Your task to perform on an android device: turn on showing notifications on the lock screen Image 0: 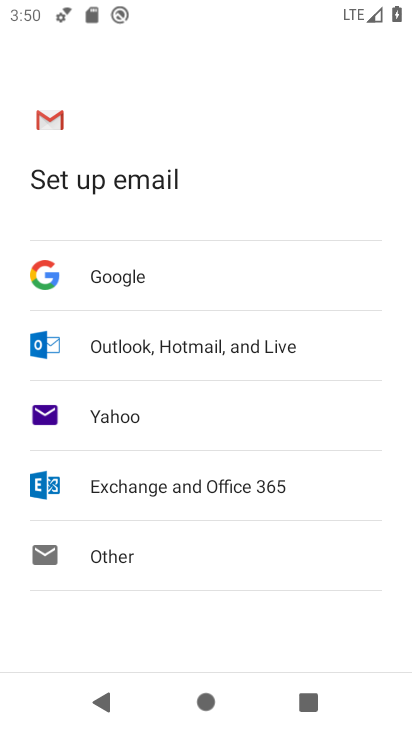
Step 0: press home button
Your task to perform on an android device: turn on showing notifications on the lock screen Image 1: 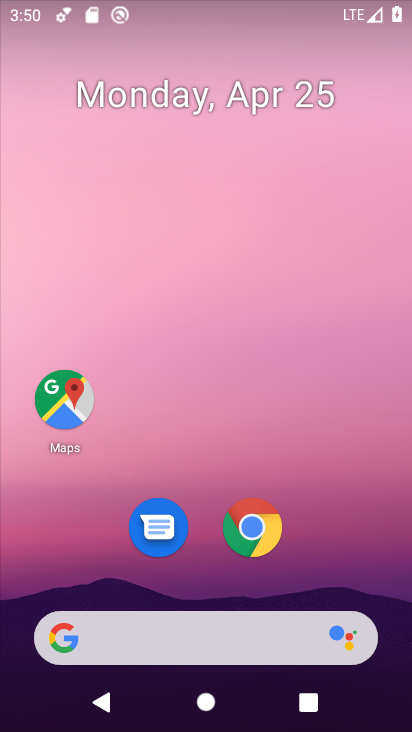
Step 1: drag from (389, 613) to (315, 42)
Your task to perform on an android device: turn on showing notifications on the lock screen Image 2: 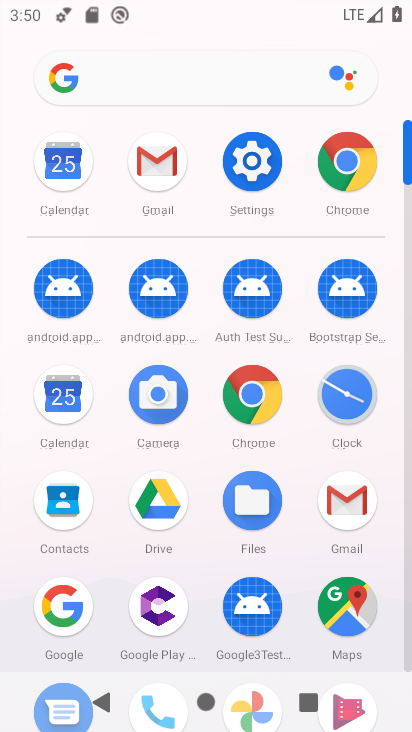
Step 2: click (409, 637)
Your task to perform on an android device: turn on showing notifications on the lock screen Image 3: 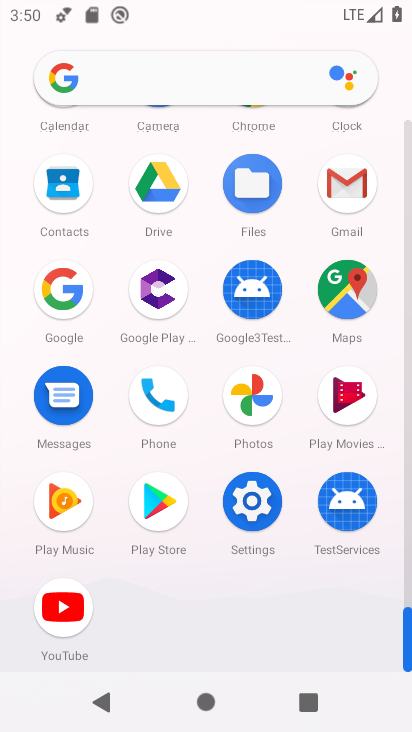
Step 3: click (249, 498)
Your task to perform on an android device: turn on showing notifications on the lock screen Image 4: 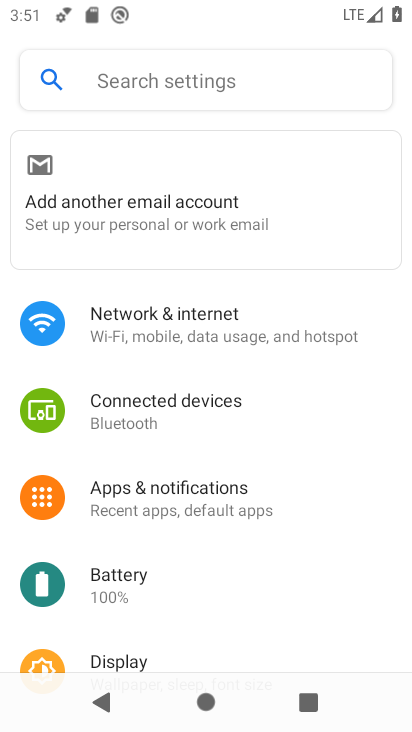
Step 4: click (167, 499)
Your task to perform on an android device: turn on showing notifications on the lock screen Image 5: 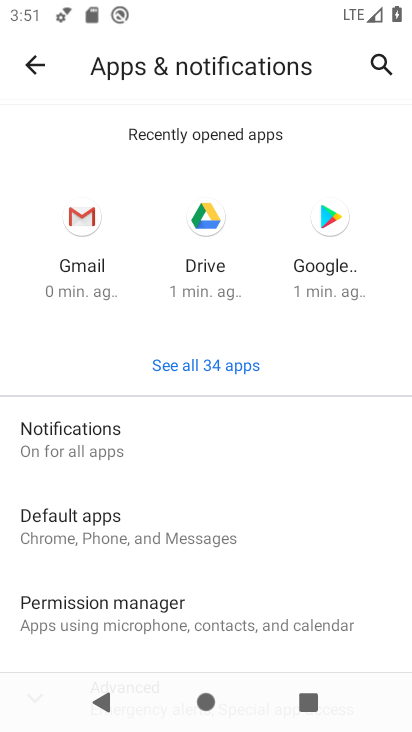
Step 5: drag from (281, 576) to (295, 222)
Your task to perform on an android device: turn on showing notifications on the lock screen Image 6: 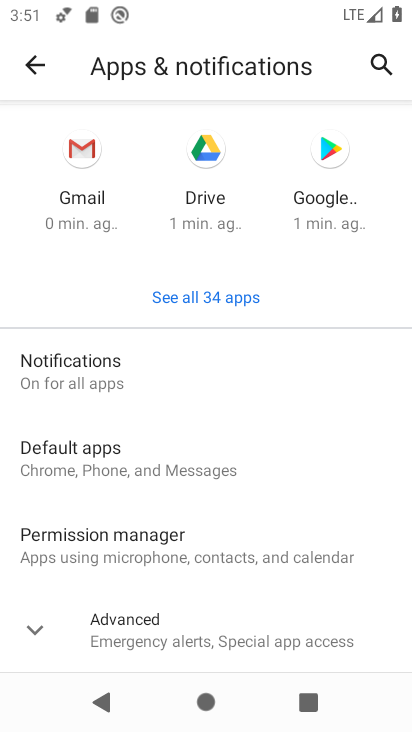
Step 6: click (70, 365)
Your task to perform on an android device: turn on showing notifications on the lock screen Image 7: 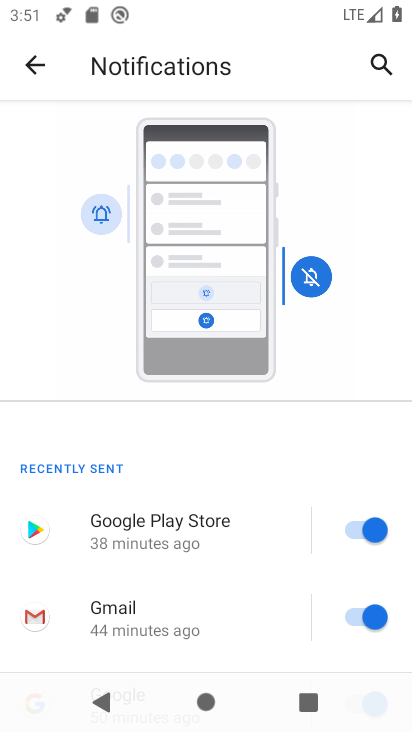
Step 7: drag from (306, 654) to (273, 173)
Your task to perform on an android device: turn on showing notifications on the lock screen Image 8: 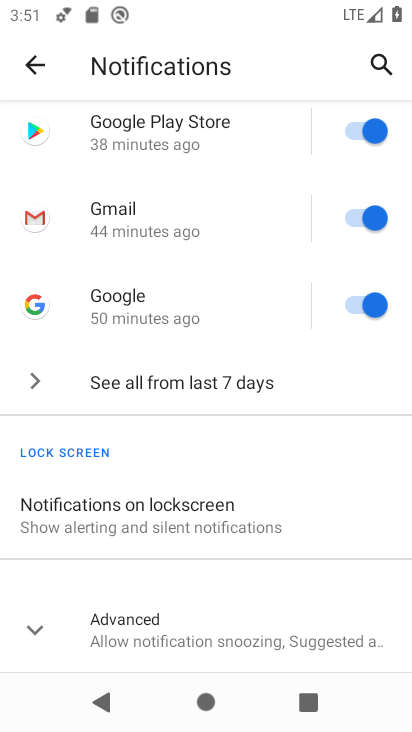
Step 8: drag from (290, 576) to (297, 174)
Your task to perform on an android device: turn on showing notifications on the lock screen Image 9: 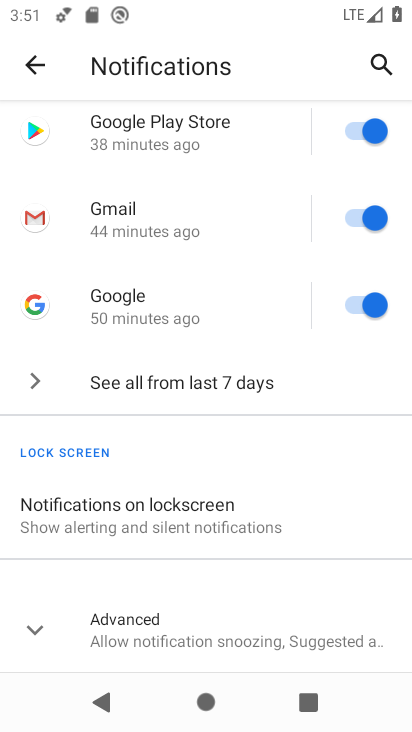
Step 9: click (67, 510)
Your task to perform on an android device: turn on showing notifications on the lock screen Image 10: 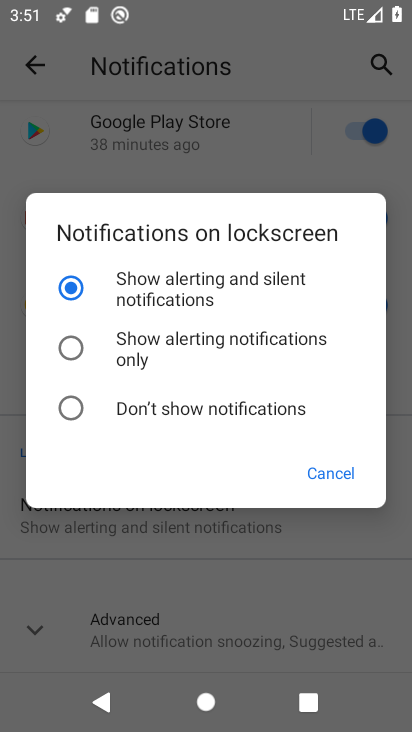
Step 10: click (67, 346)
Your task to perform on an android device: turn on showing notifications on the lock screen Image 11: 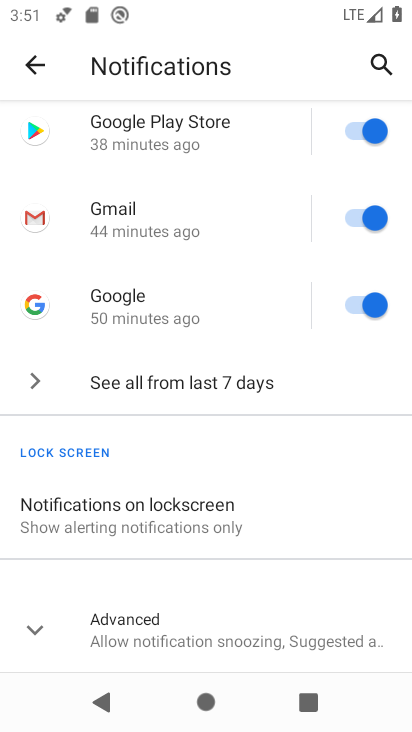
Step 11: task complete